Your task to perform on an android device: open chrome and create a bookmark for the current page Image 0: 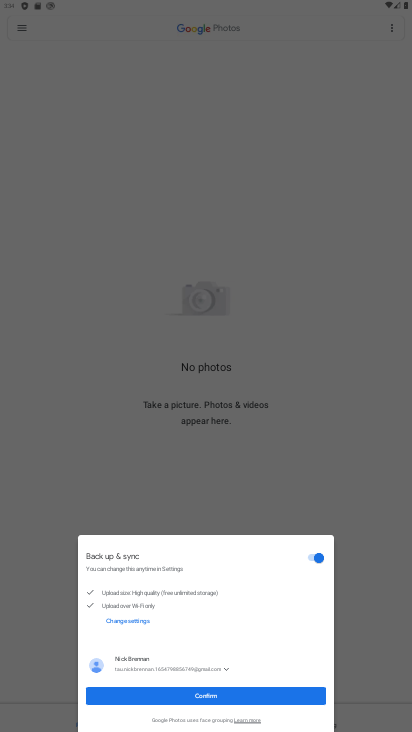
Step 0: press home button
Your task to perform on an android device: open chrome and create a bookmark for the current page Image 1: 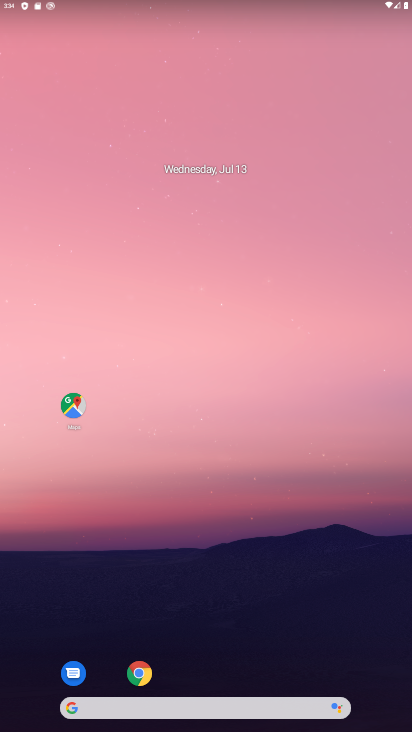
Step 1: click (135, 670)
Your task to perform on an android device: open chrome and create a bookmark for the current page Image 2: 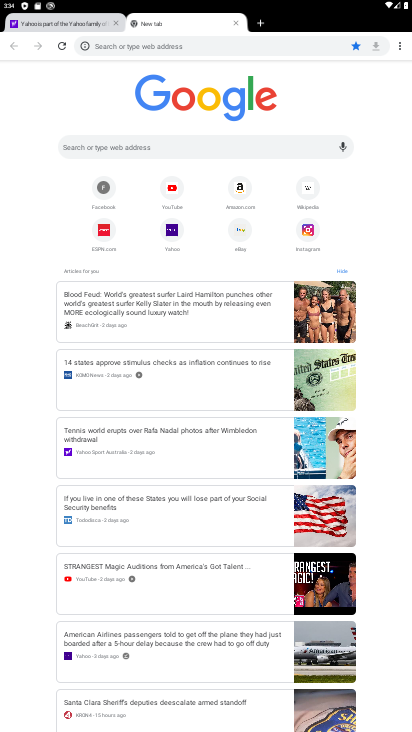
Step 2: click (399, 49)
Your task to perform on an android device: open chrome and create a bookmark for the current page Image 3: 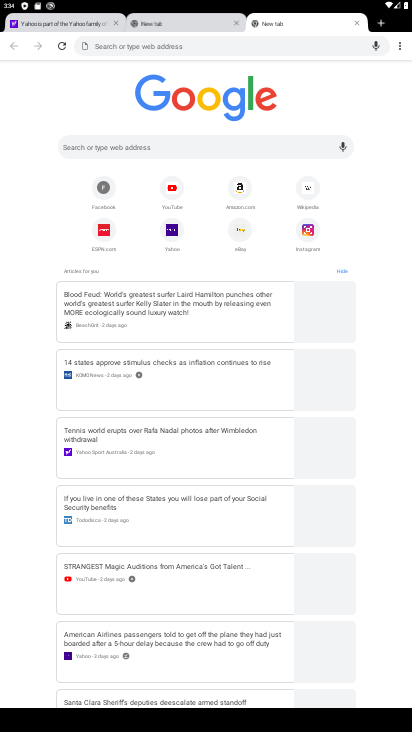
Step 3: click (399, 49)
Your task to perform on an android device: open chrome and create a bookmark for the current page Image 4: 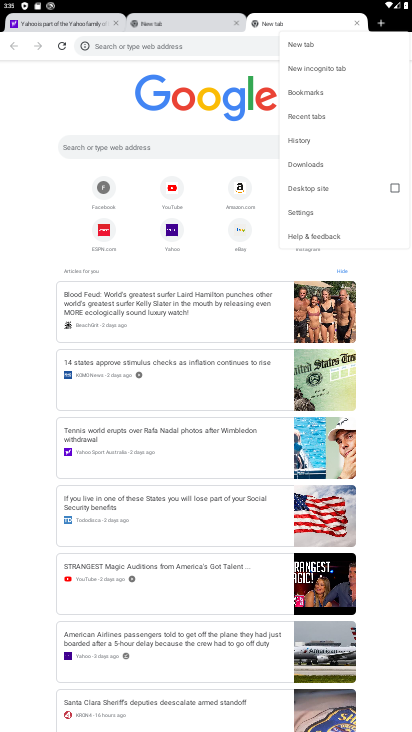
Step 4: click (304, 99)
Your task to perform on an android device: open chrome and create a bookmark for the current page Image 5: 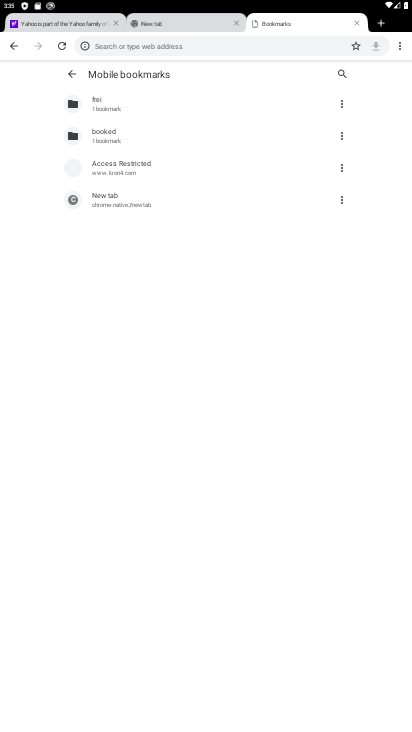
Step 5: click (355, 23)
Your task to perform on an android device: open chrome and create a bookmark for the current page Image 6: 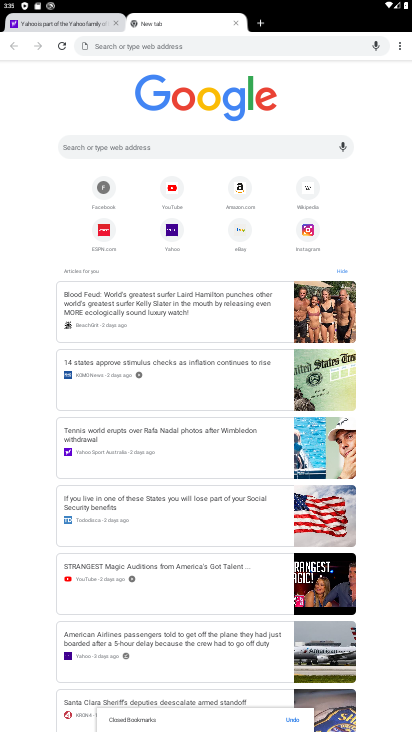
Step 6: click (396, 53)
Your task to perform on an android device: open chrome and create a bookmark for the current page Image 7: 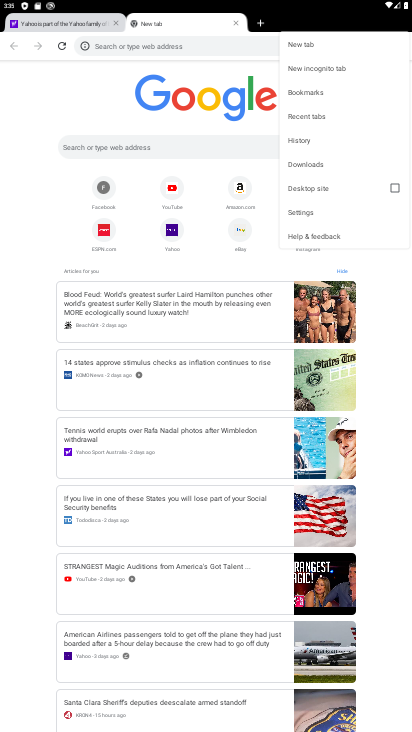
Step 7: click (25, 117)
Your task to perform on an android device: open chrome and create a bookmark for the current page Image 8: 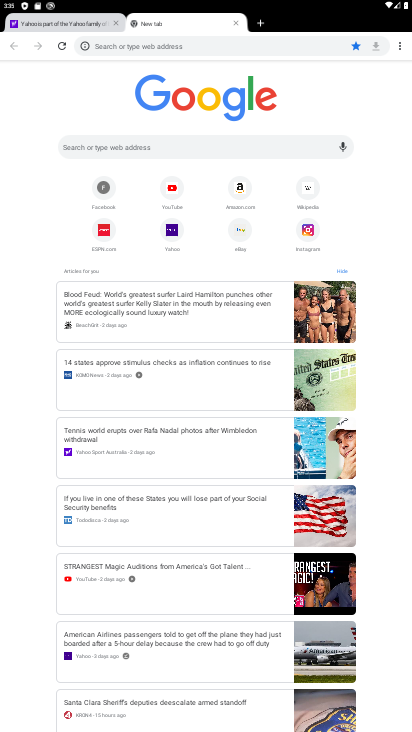
Step 8: task complete